Your task to perform on an android device: Go to network settings Image 0: 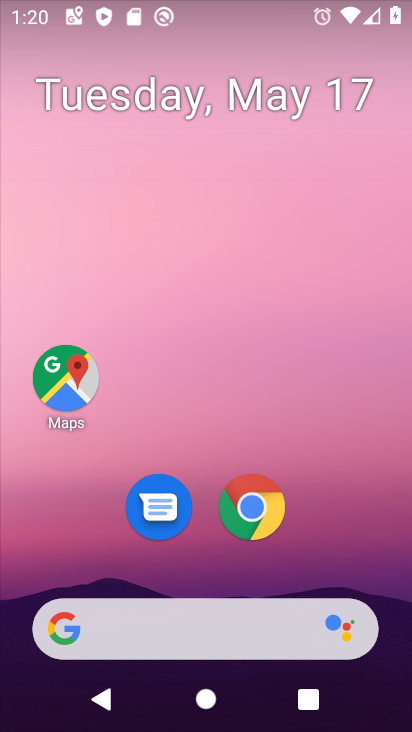
Step 0: drag from (315, 552) to (288, 174)
Your task to perform on an android device: Go to network settings Image 1: 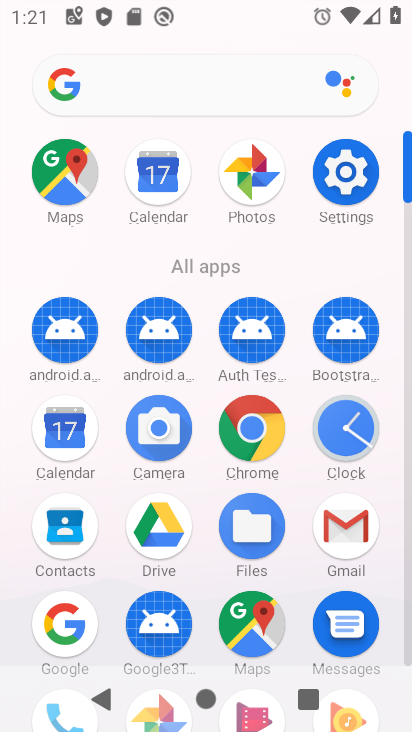
Step 1: click (356, 162)
Your task to perform on an android device: Go to network settings Image 2: 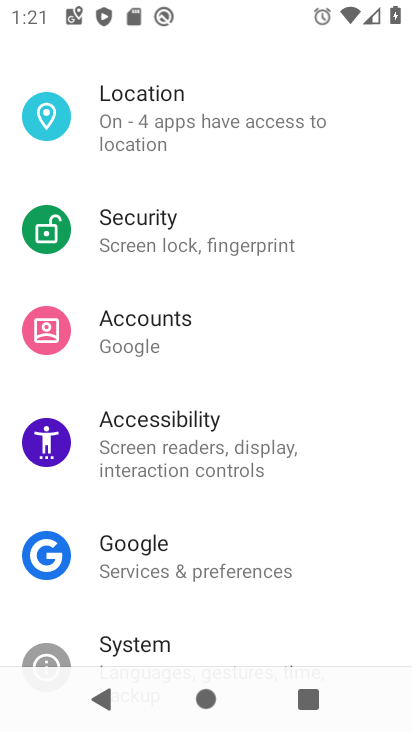
Step 2: drag from (179, 122) to (162, 506)
Your task to perform on an android device: Go to network settings Image 3: 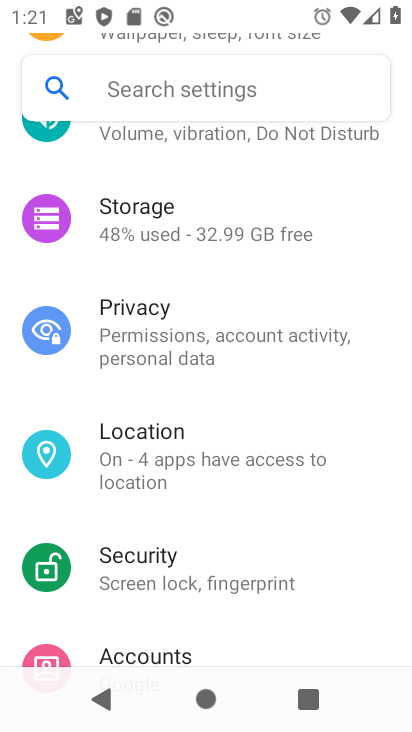
Step 3: drag from (240, 186) to (210, 547)
Your task to perform on an android device: Go to network settings Image 4: 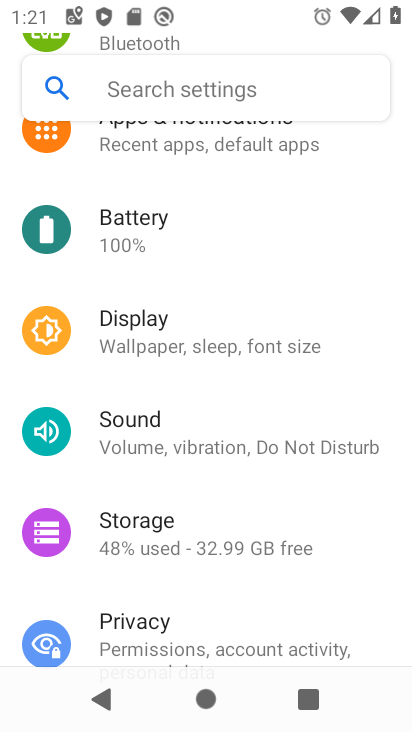
Step 4: drag from (195, 199) to (185, 634)
Your task to perform on an android device: Go to network settings Image 5: 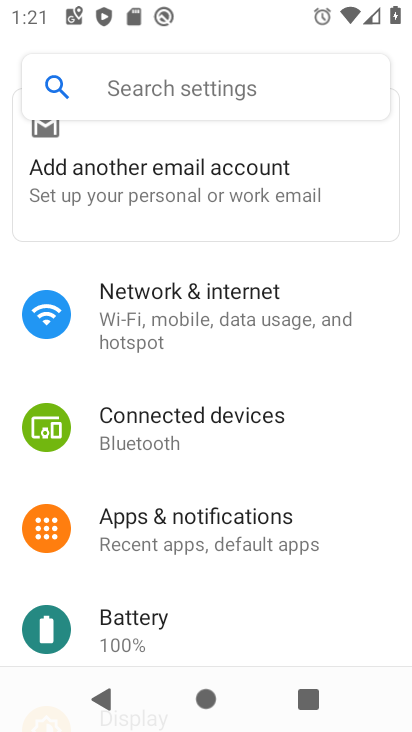
Step 5: drag from (205, 199) to (205, 361)
Your task to perform on an android device: Go to network settings Image 6: 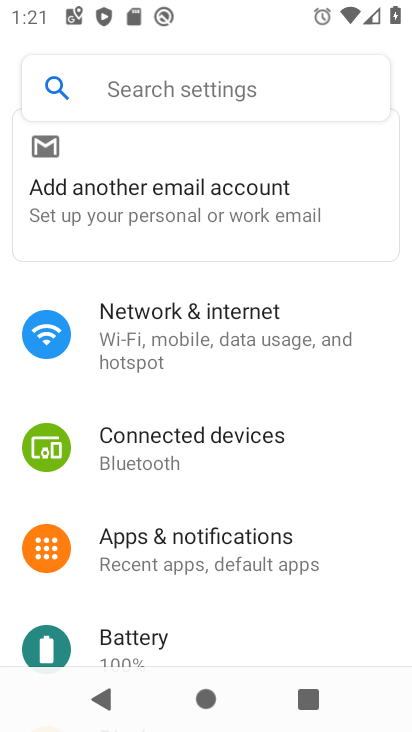
Step 6: click (208, 324)
Your task to perform on an android device: Go to network settings Image 7: 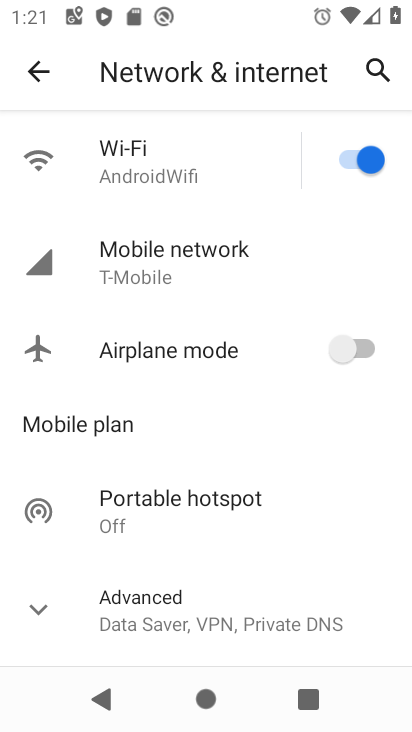
Step 7: task complete